Your task to perform on an android device: Toggle the flashlight Image 0: 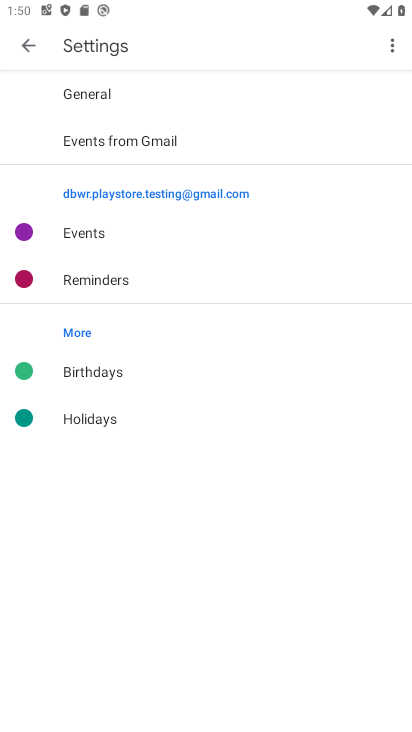
Step 0: press back button
Your task to perform on an android device: Toggle the flashlight Image 1: 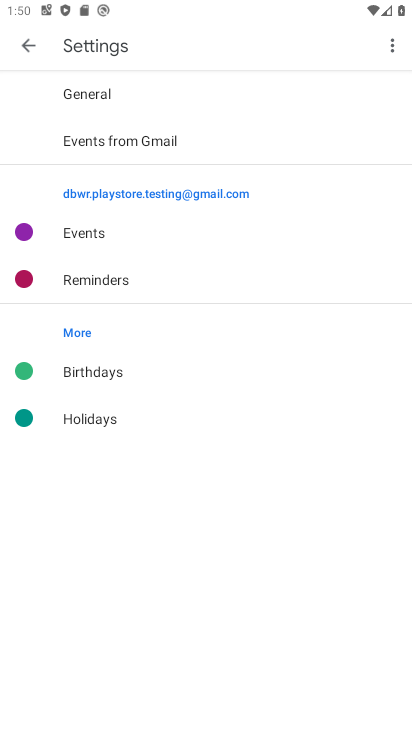
Step 1: press back button
Your task to perform on an android device: Toggle the flashlight Image 2: 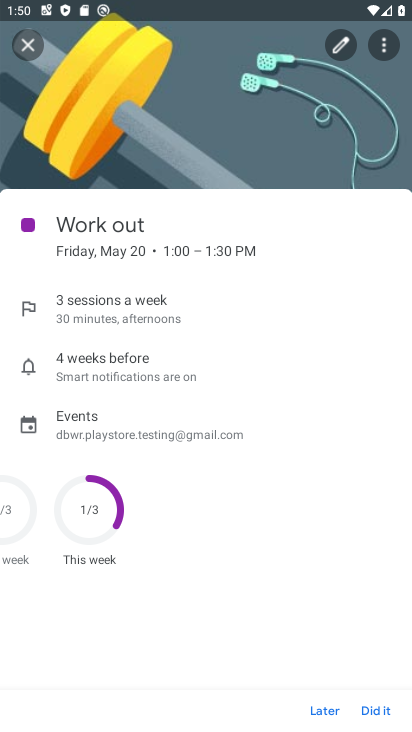
Step 2: press back button
Your task to perform on an android device: Toggle the flashlight Image 3: 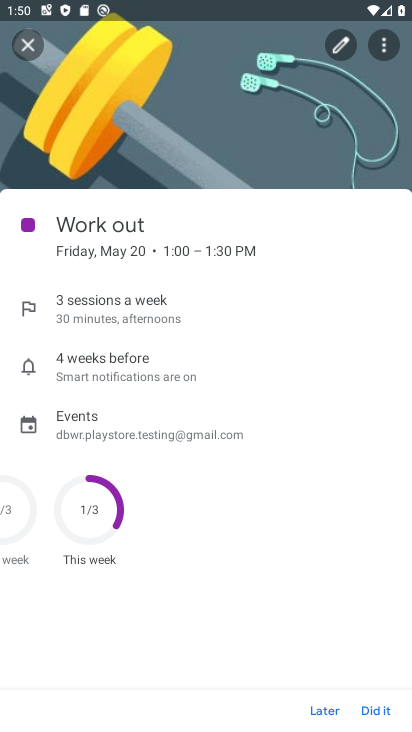
Step 3: press back button
Your task to perform on an android device: Toggle the flashlight Image 4: 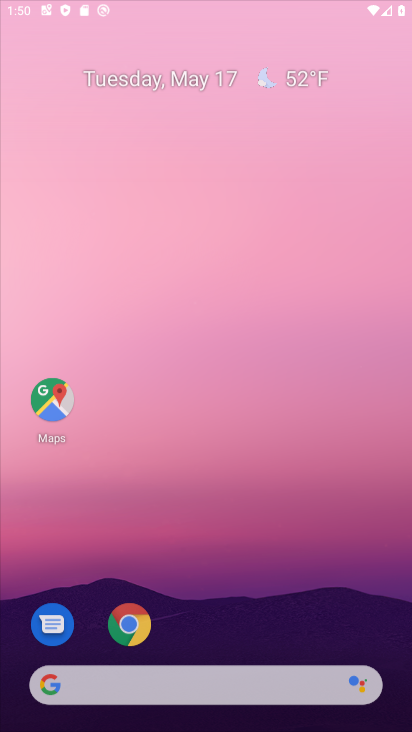
Step 4: press back button
Your task to perform on an android device: Toggle the flashlight Image 5: 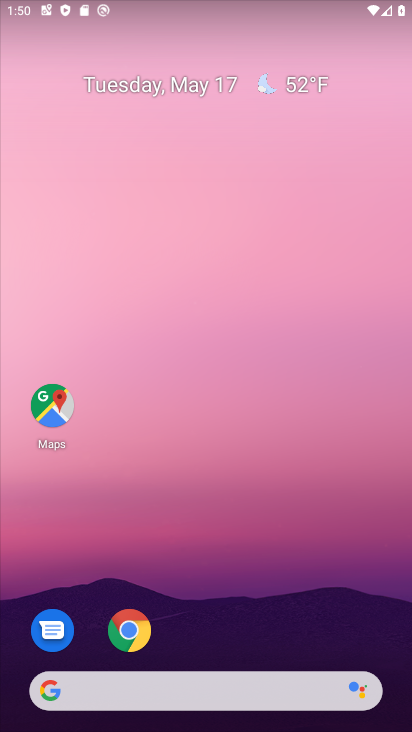
Step 5: drag from (258, 476) to (320, 56)
Your task to perform on an android device: Toggle the flashlight Image 6: 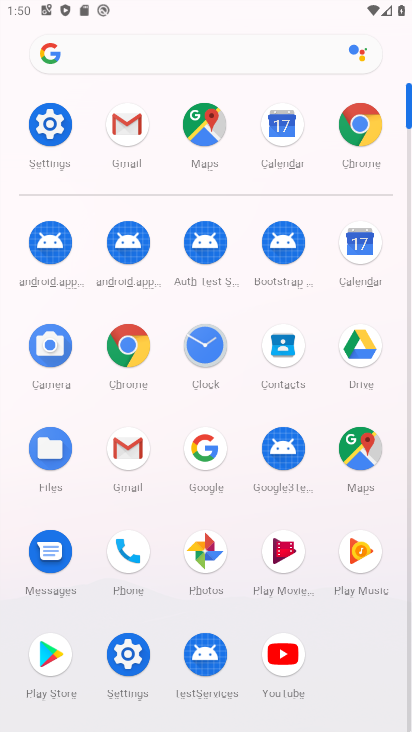
Step 6: click (62, 120)
Your task to perform on an android device: Toggle the flashlight Image 7: 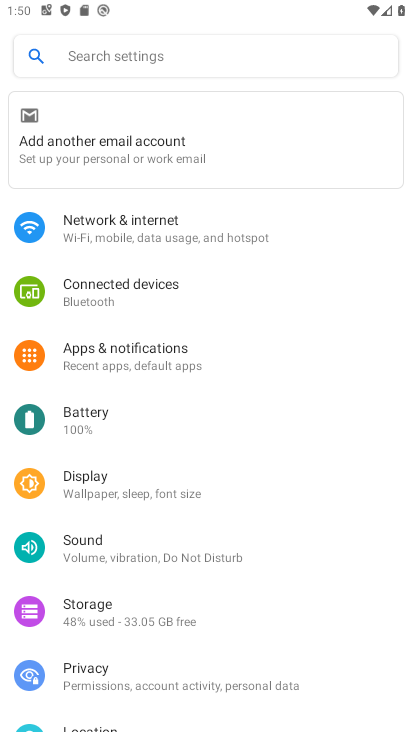
Step 7: click (82, 52)
Your task to perform on an android device: Toggle the flashlight Image 8: 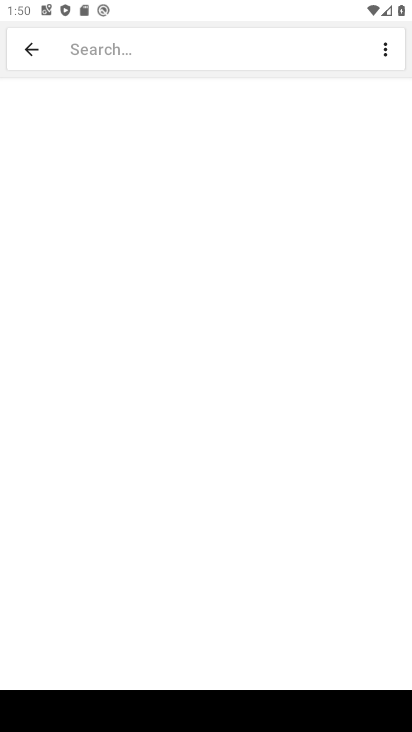
Step 8: type "flashlight"
Your task to perform on an android device: Toggle the flashlight Image 9: 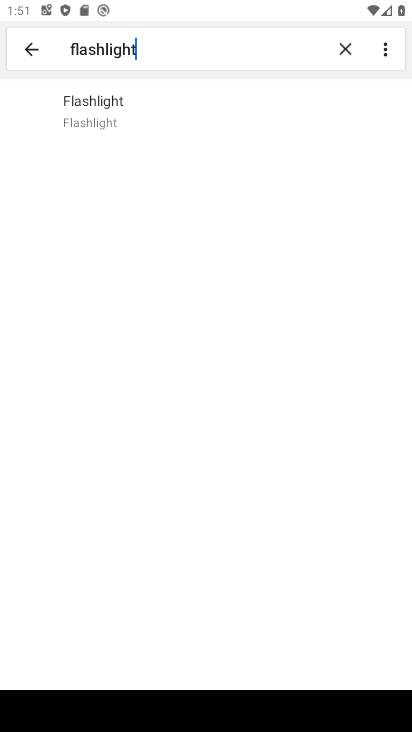
Step 9: click (183, 103)
Your task to perform on an android device: Toggle the flashlight Image 10: 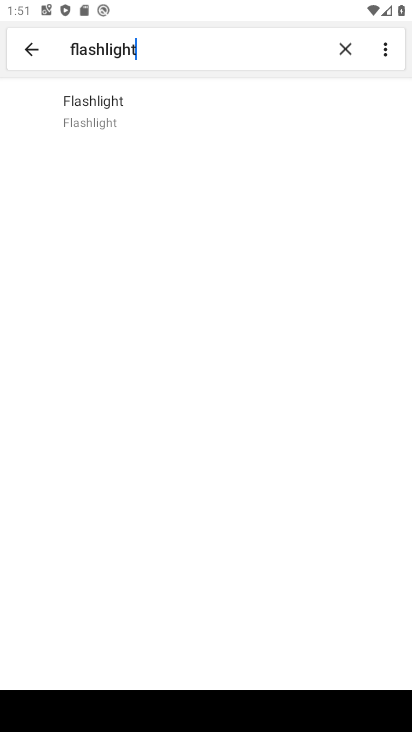
Step 10: click (109, 115)
Your task to perform on an android device: Toggle the flashlight Image 11: 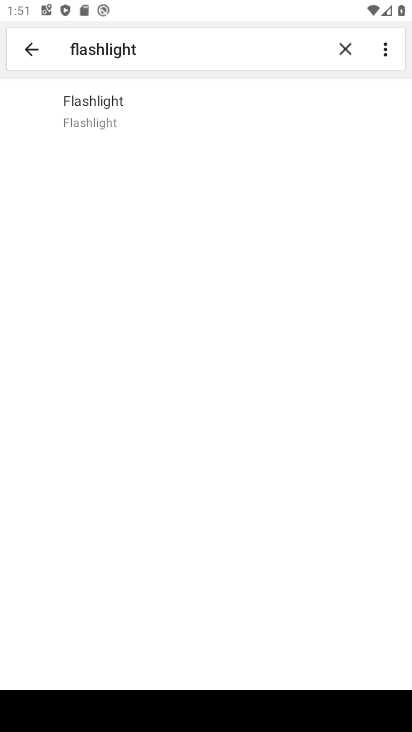
Step 11: task complete